Your task to perform on an android device: Go to Yahoo.com Image 0: 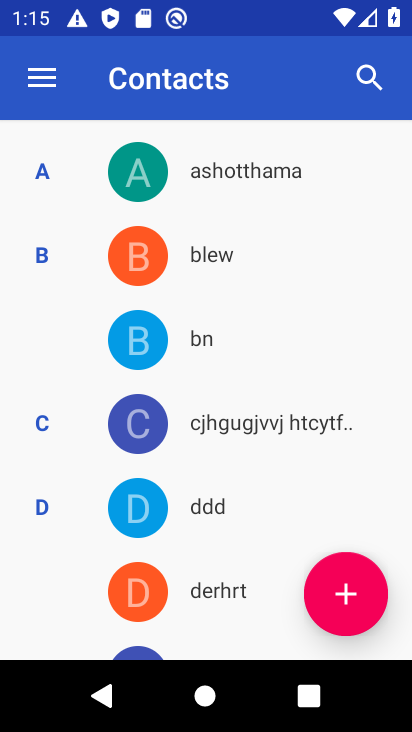
Step 0: press home button
Your task to perform on an android device: Go to Yahoo.com Image 1: 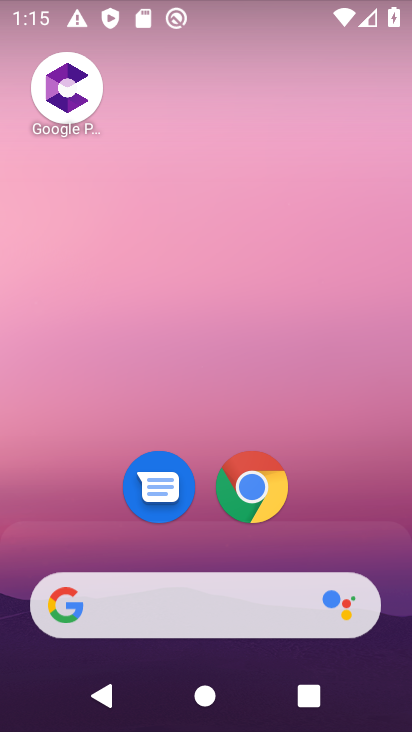
Step 1: drag from (307, 536) to (309, 51)
Your task to perform on an android device: Go to Yahoo.com Image 2: 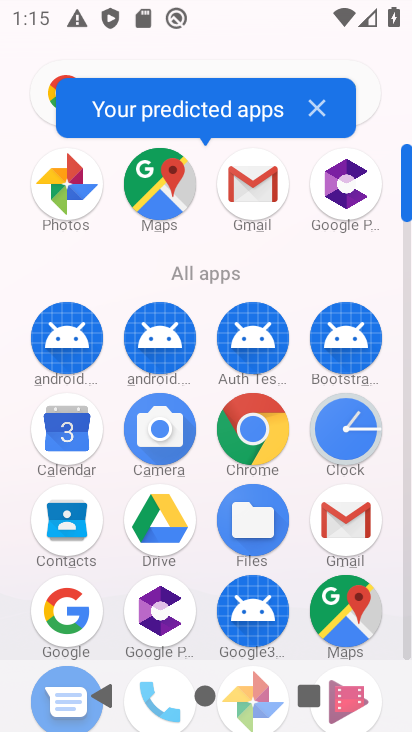
Step 2: drag from (198, 479) to (200, 136)
Your task to perform on an android device: Go to Yahoo.com Image 3: 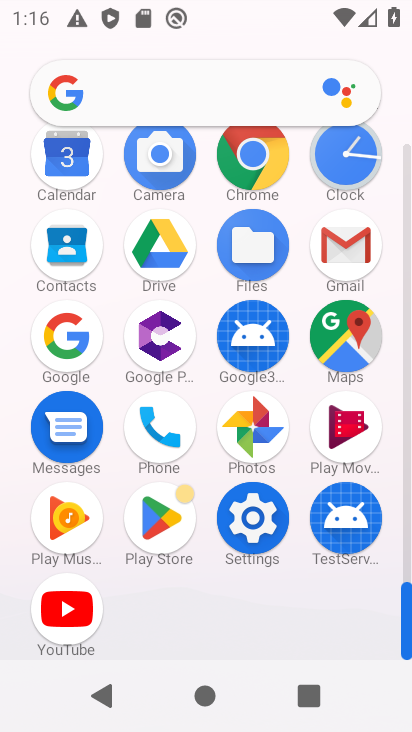
Step 3: click (264, 160)
Your task to perform on an android device: Go to Yahoo.com Image 4: 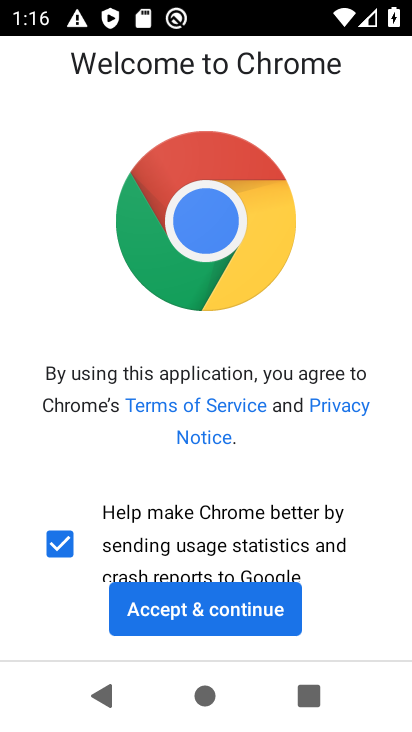
Step 4: click (229, 598)
Your task to perform on an android device: Go to Yahoo.com Image 5: 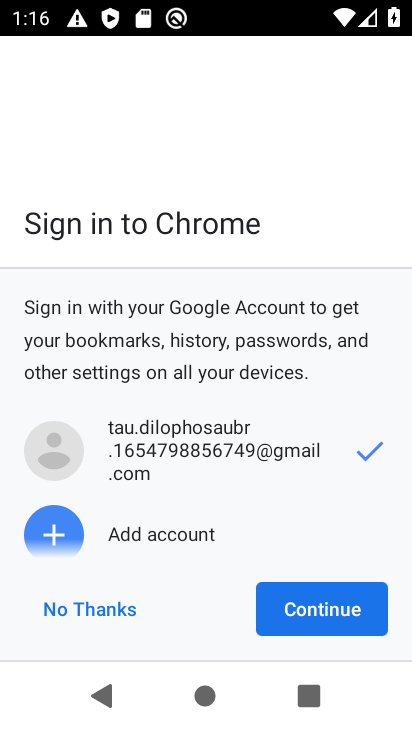
Step 5: click (353, 604)
Your task to perform on an android device: Go to Yahoo.com Image 6: 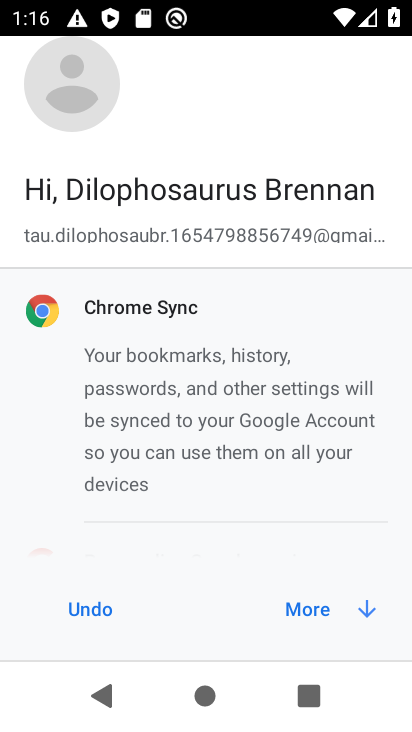
Step 6: click (353, 604)
Your task to perform on an android device: Go to Yahoo.com Image 7: 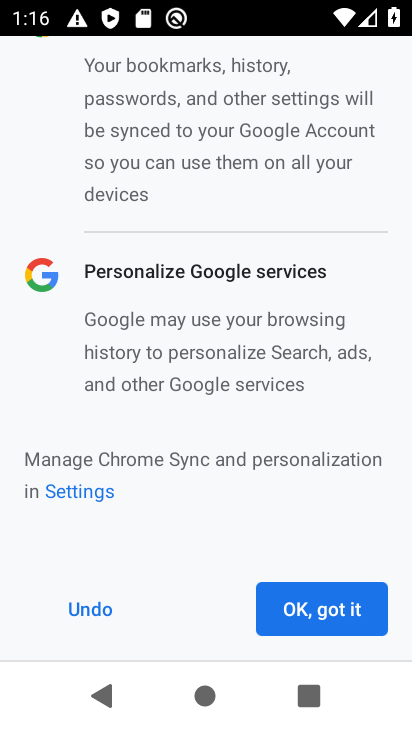
Step 7: click (353, 604)
Your task to perform on an android device: Go to Yahoo.com Image 8: 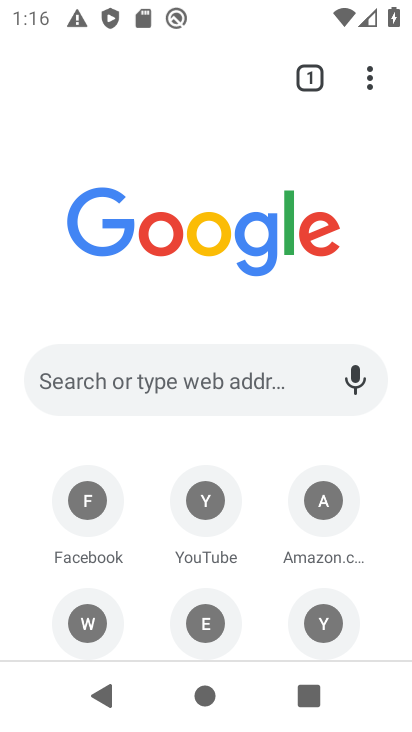
Step 8: click (188, 373)
Your task to perform on an android device: Go to Yahoo.com Image 9: 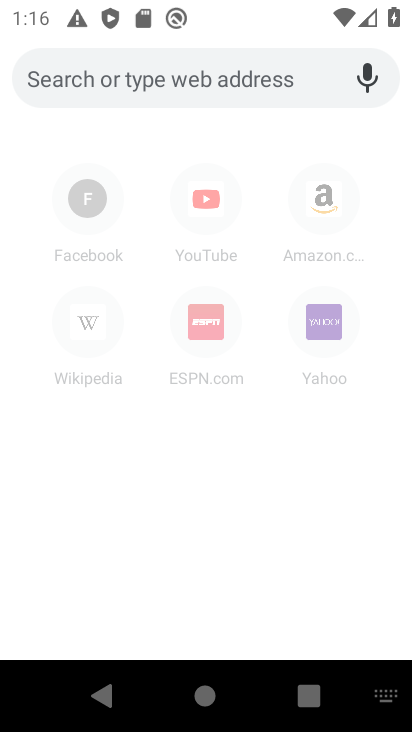
Step 9: type " Yahoo.com"
Your task to perform on an android device: Go to Yahoo.com Image 10: 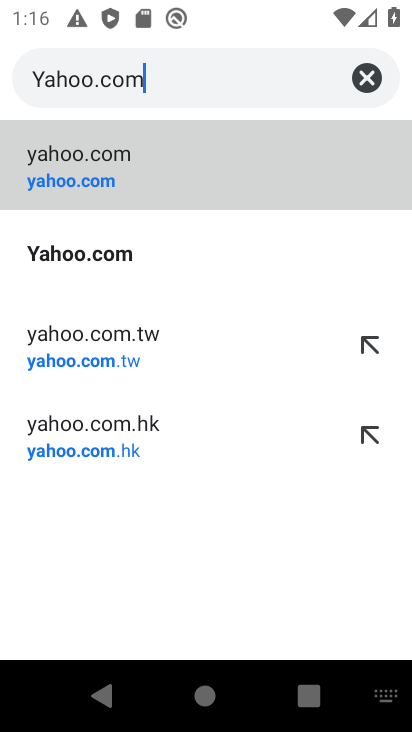
Step 10: type ""
Your task to perform on an android device: Go to Yahoo.com Image 11: 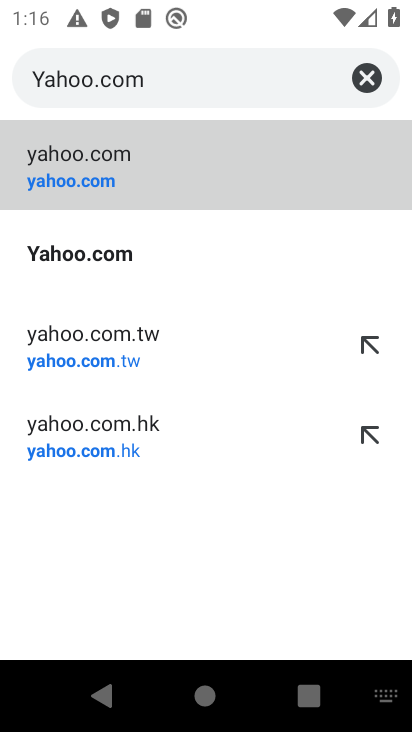
Step 11: click (66, 181)
Your task to perform on an android device: Go to Yahoo.com Image 12: 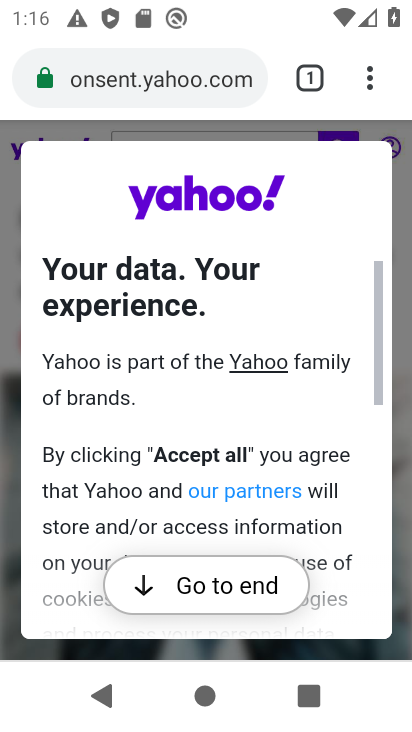
Step 12: drag from (279, 540) to (289, 144)
Your task to perform on an android device: Go to Yahoo.com Image 13: 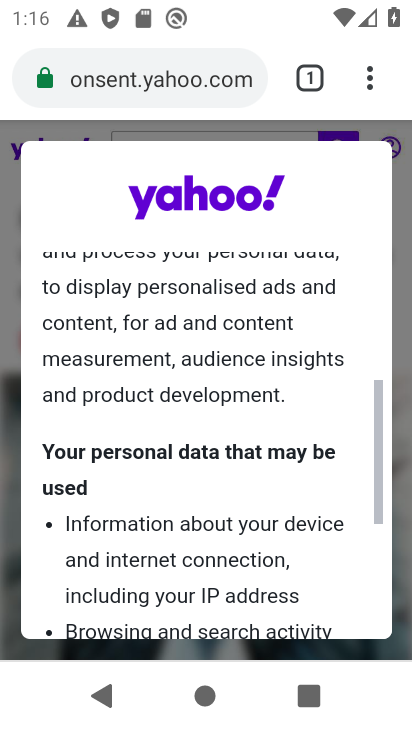
Step 13: drag from (208, 527) to (216, 209)
Your task to perform on an android device: Go to Yahoo.com Image 14: 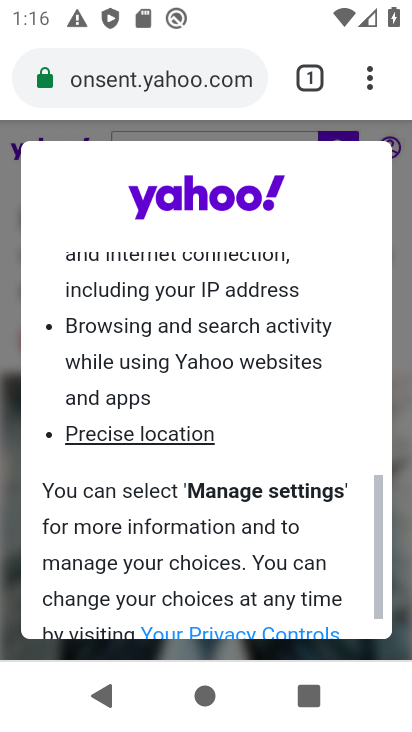
Step 14: drag from (208, 553) to (231, 209)
Your task to perform on an android device: Go to Yahoo.com Image 15: 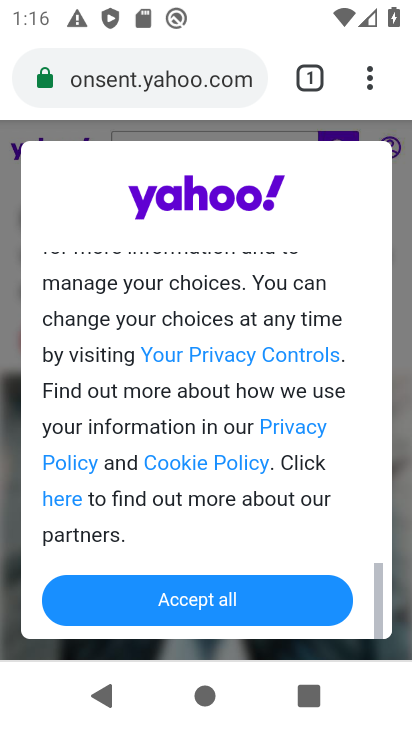
Step 15: click (241, 606)
Your task to perform on an android device: Go to Yahoo.com Image 16: 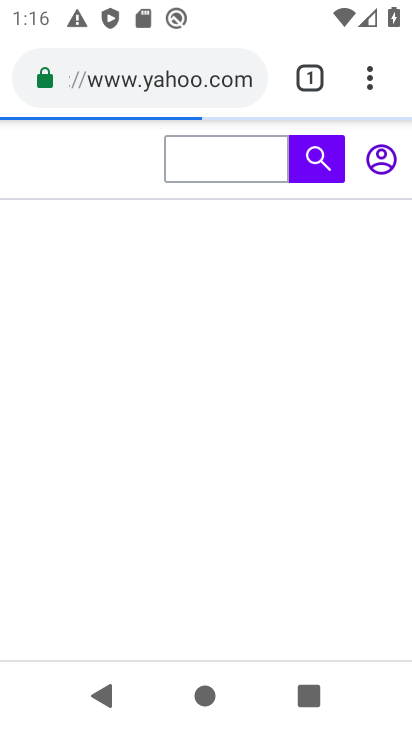
Step 16: click (232, 598)
Your task to perform on an android device: Go to Yahoo.com Image 17: 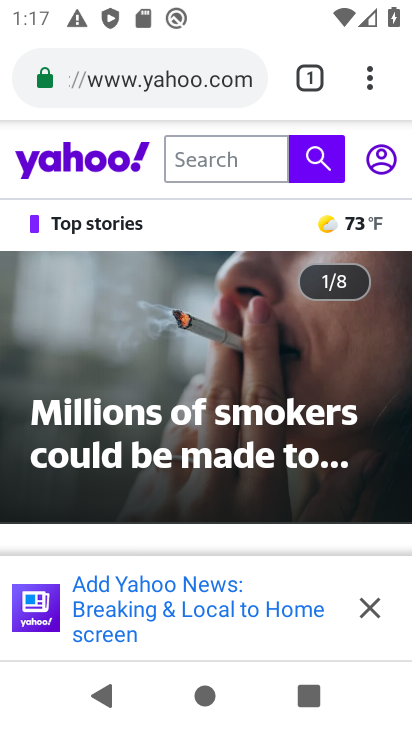
Step 17: task complete